Your task to perform on an android device: Add "razer blade" to the cart on bestbuy.com, then select checkout. Image 0: 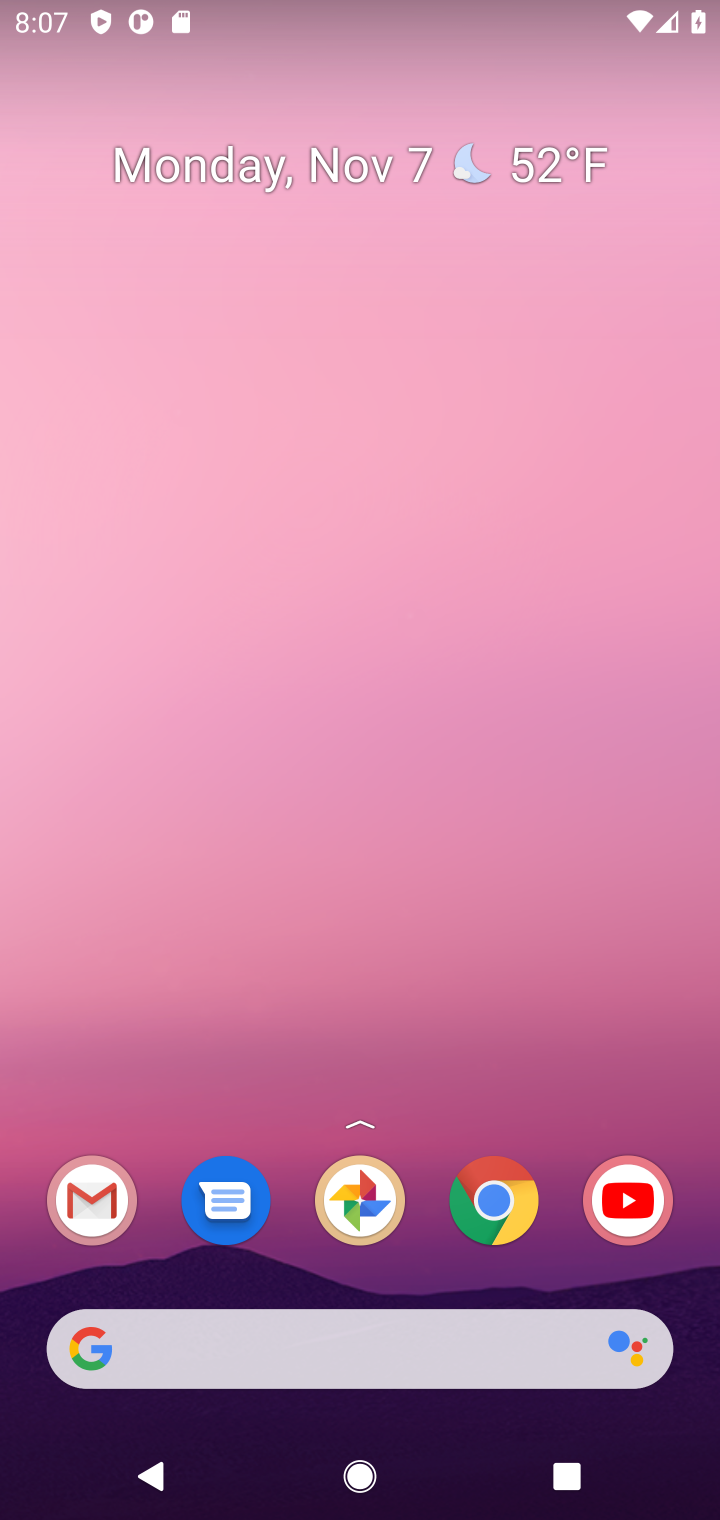
Step 0: click (496, 1138)
Your task to perform on an android device: Add "razer blade" to the cart on bestbuy.com, then select checkout. Image 1: 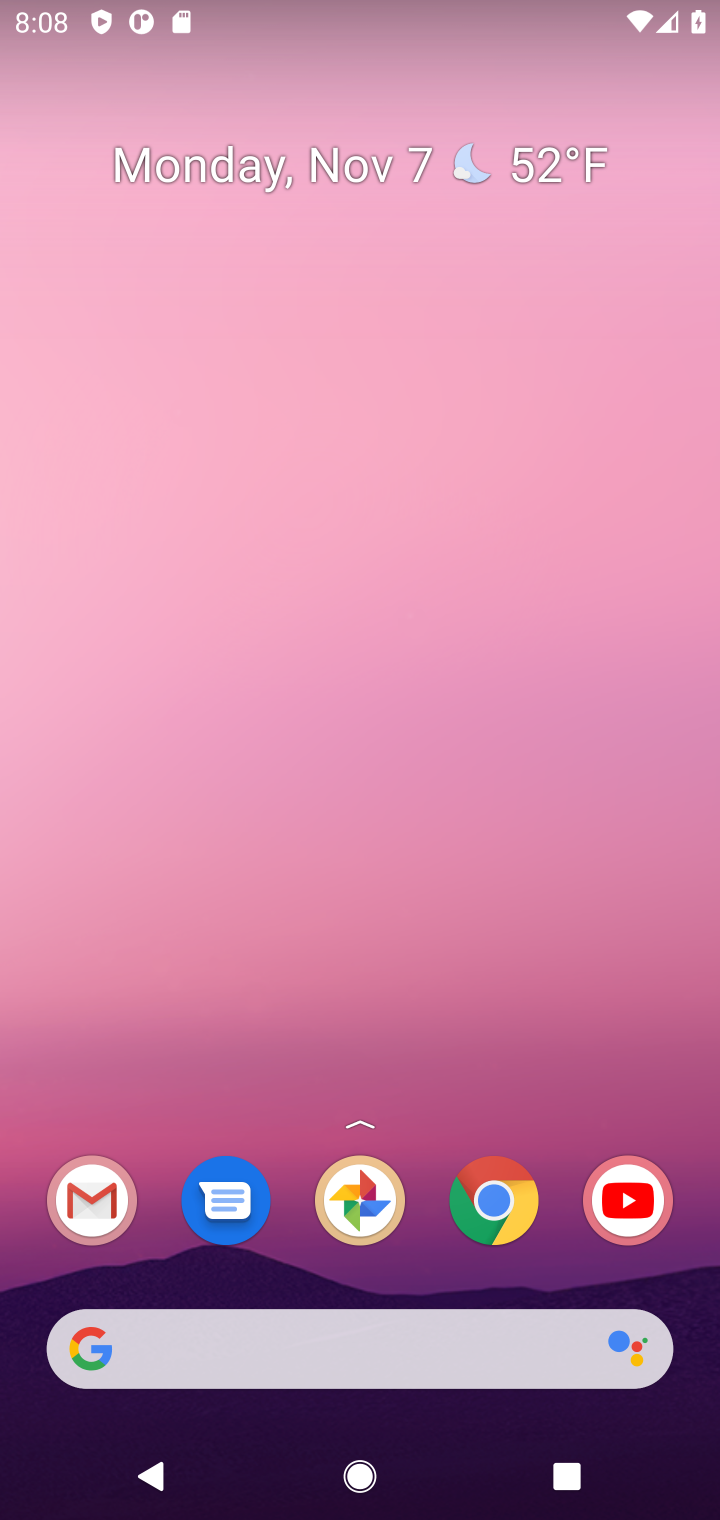
Step 1: click (511, 1214)
Your task to perform on an android device: Add "razer blade" to the cart on bestbuy.com, then select checkout. Image 2: 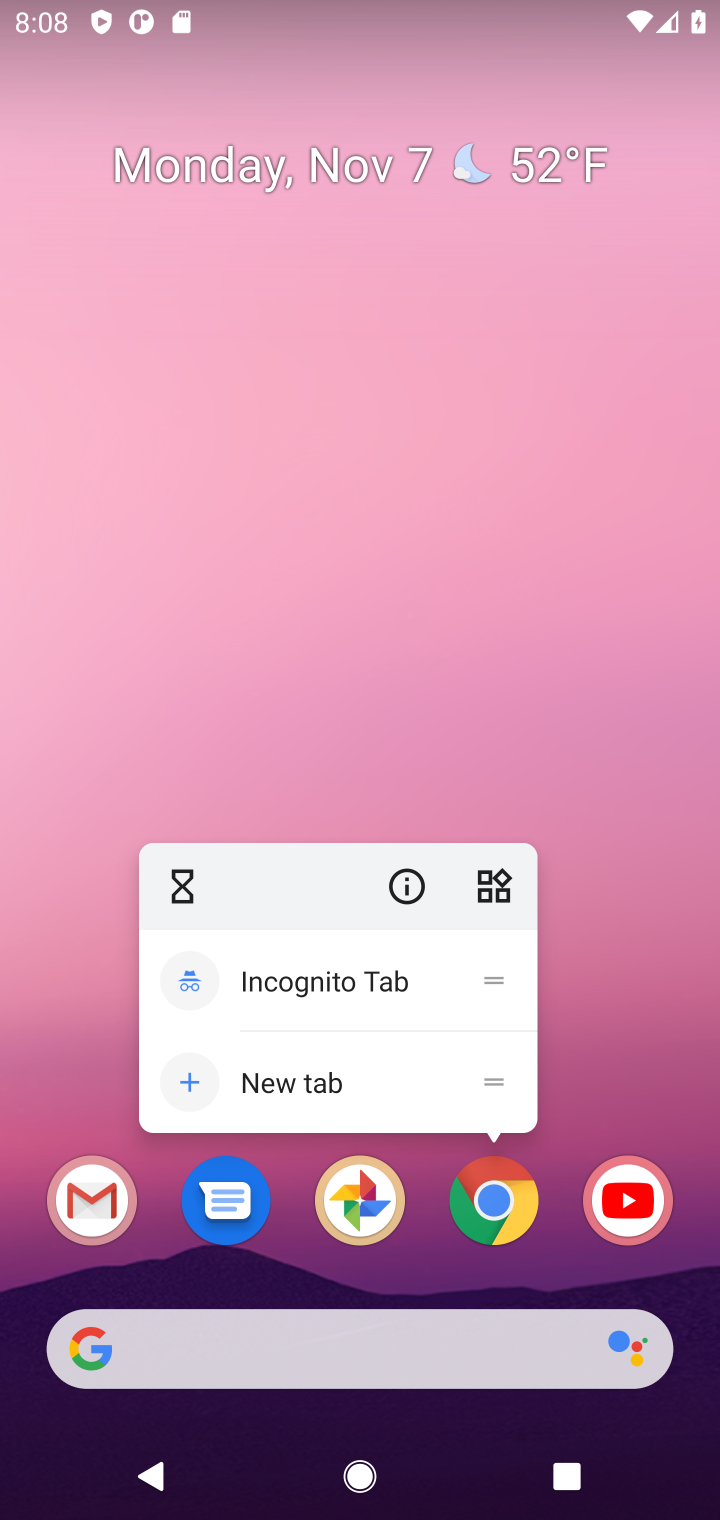
Step 2: click (515, 1229)
Your task to perform on an android device: Add "razer blade" to the cart on bestbuy.com, then select checkout. Image 3: 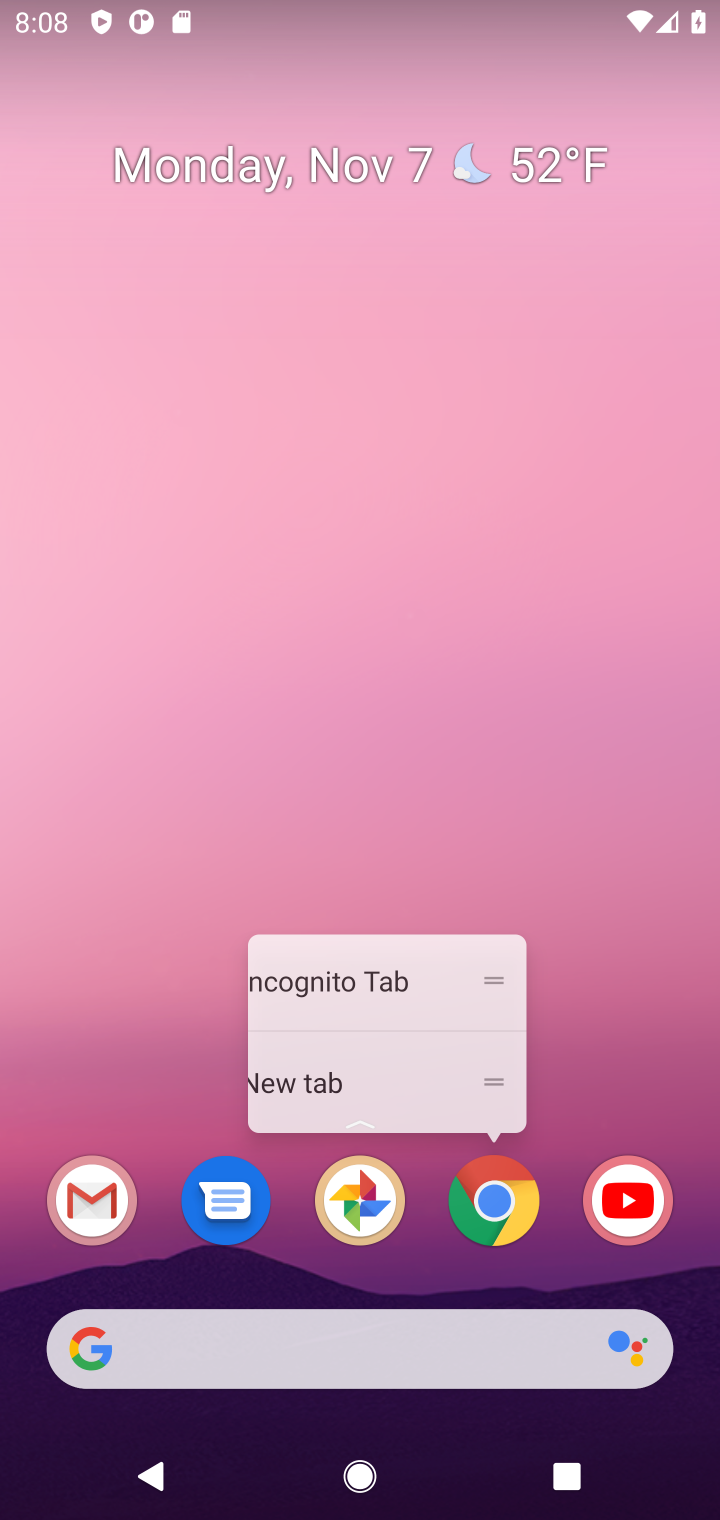
Step 3: click (515, 1229)
Your task to perform on an android device: Add "razer blade" to the cart on bestbuy.com, then select checkout. Image 4: 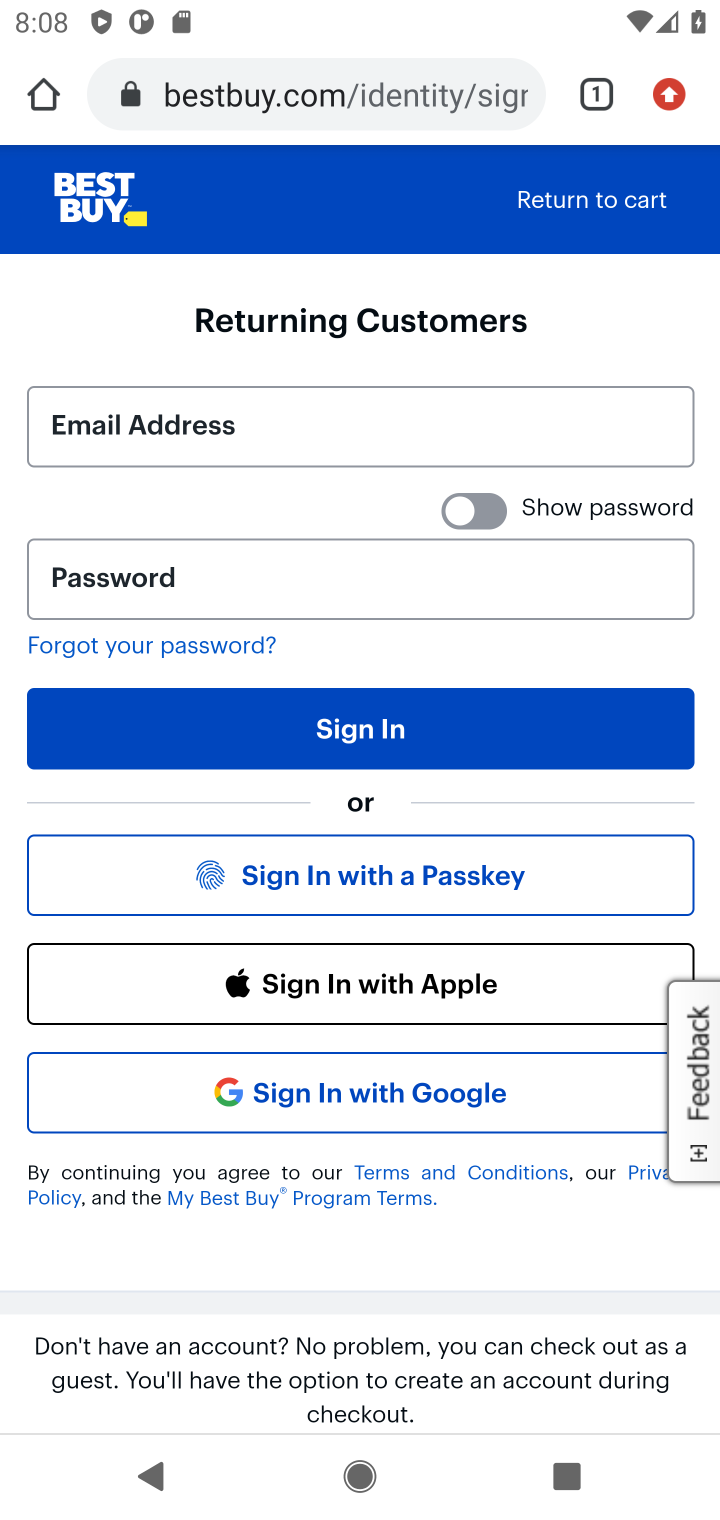
Step 4: click (301, 118)
Your task to perform on an android device: Add "razer blade" to the cart on bestbuy.com, then select checkout. Image 5: 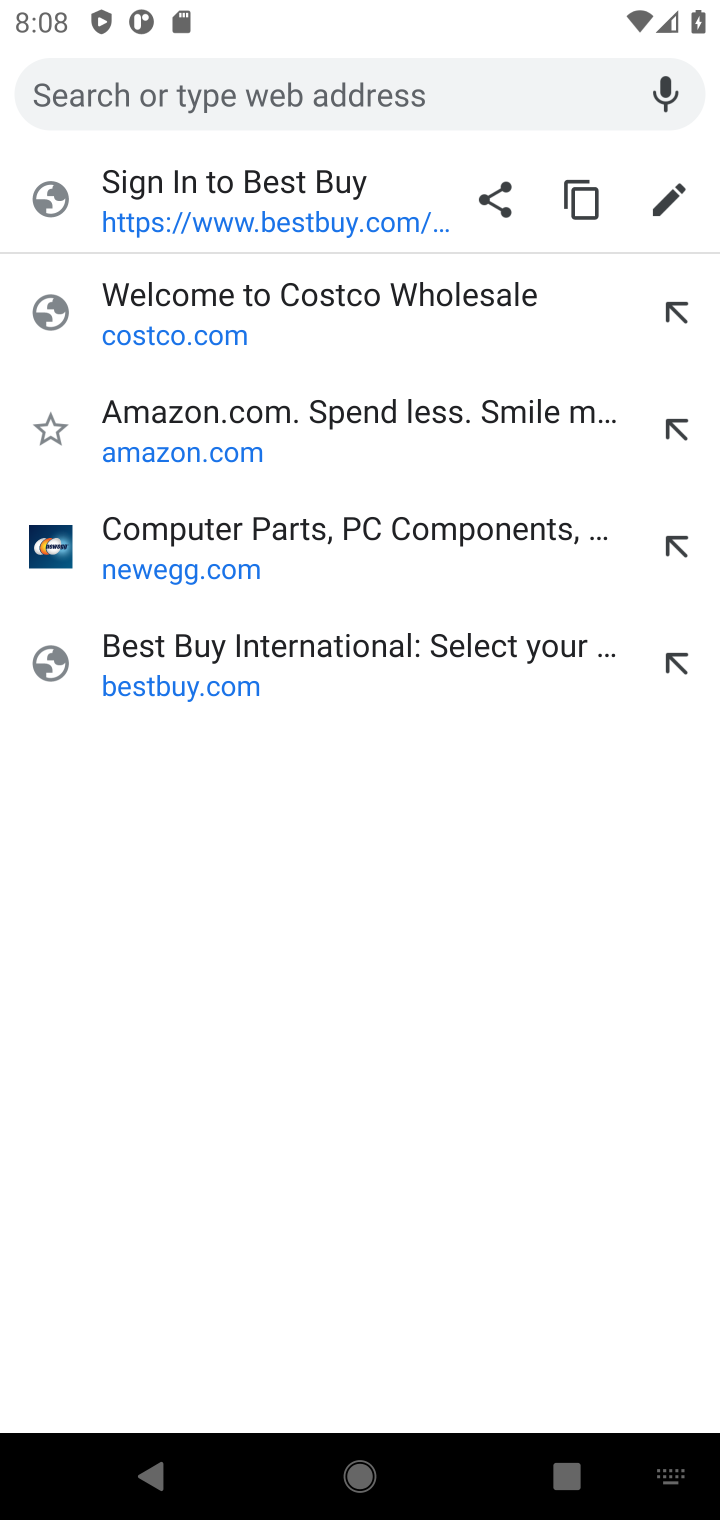
Step 5: type "bestbuy.com"
Your task to perform on an android device: Add "razer blade" to the cart on bestbuy.com, then select checkout. Image 6: 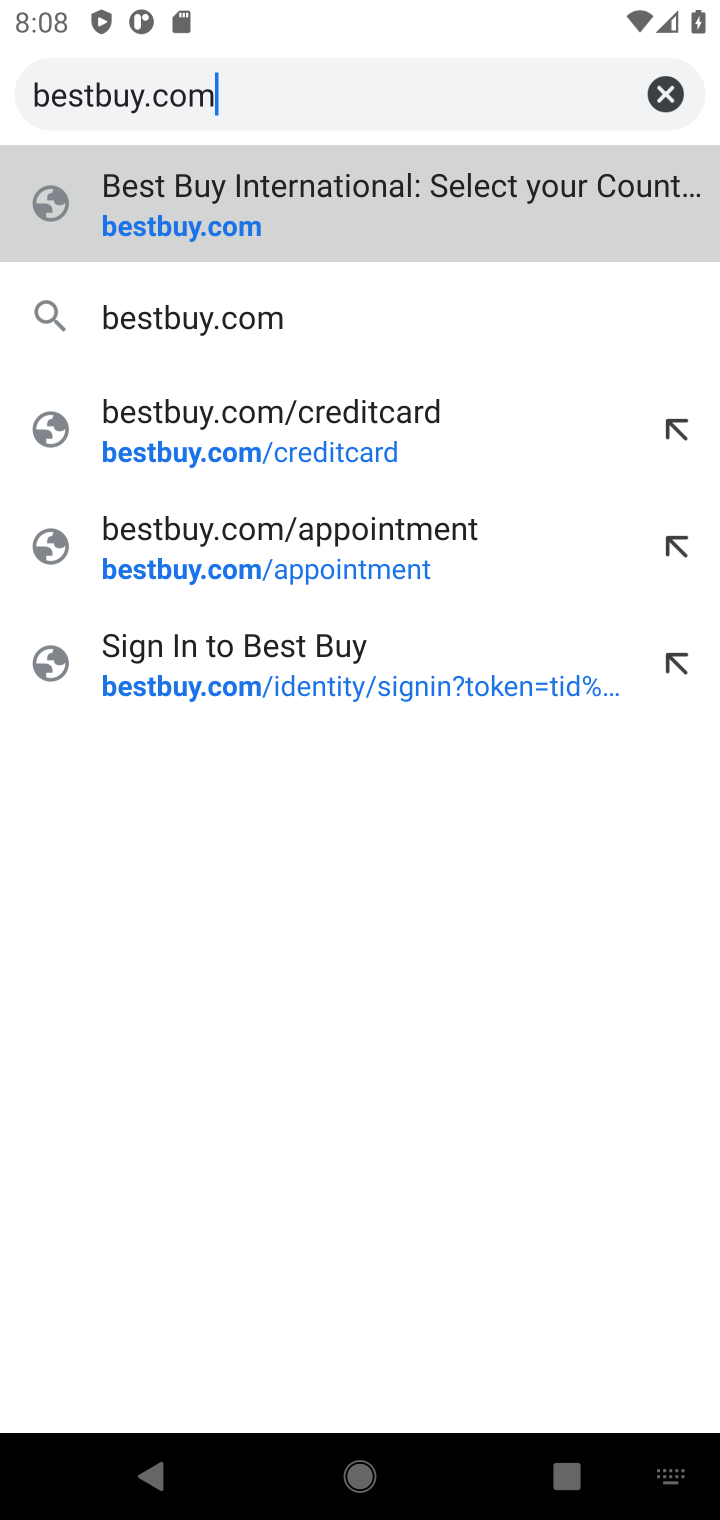
Step 6: press enter
Your task to perform on an android device: Add "razer blade" to the cart on bestbuy.com, then select checkout. Image 7: 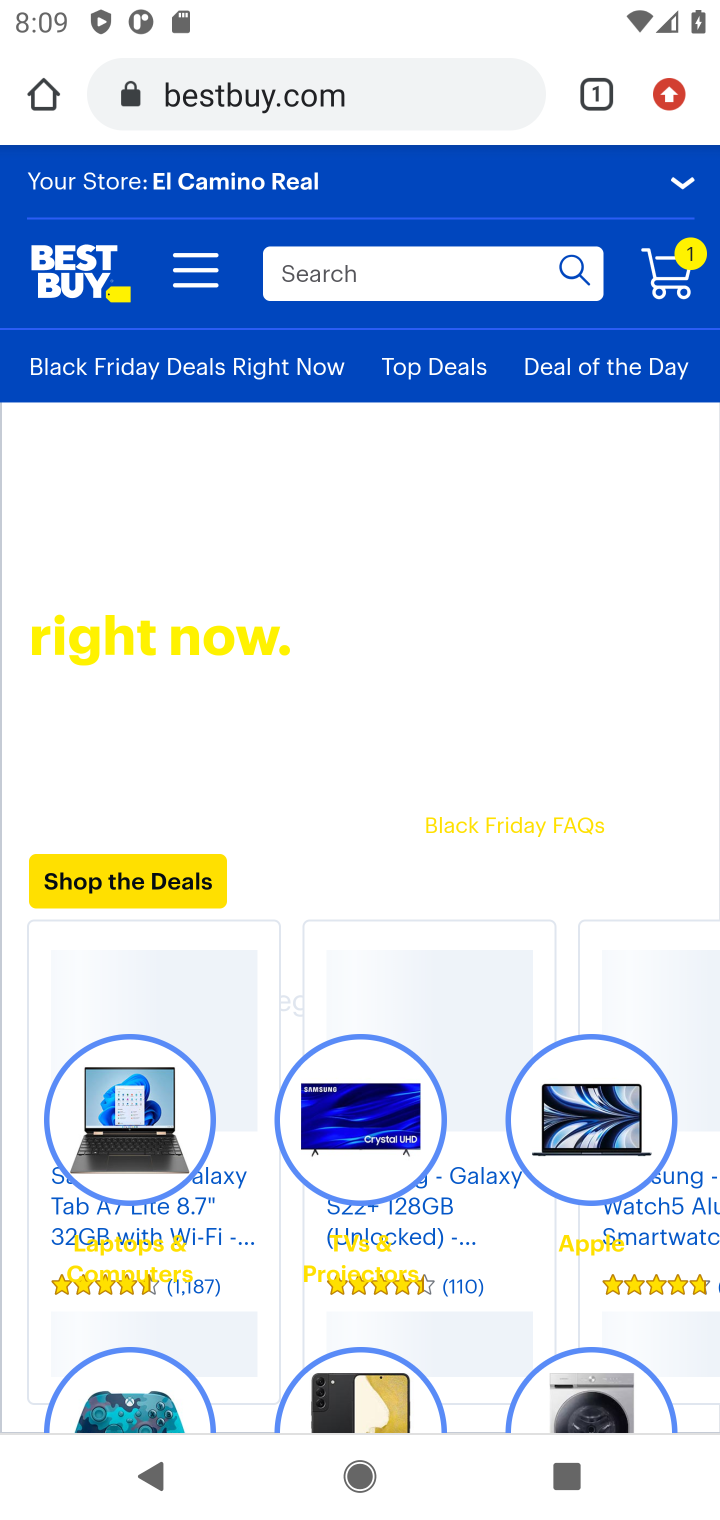
Step 7: click (374, 272)
Your task to perform on an android device: Add "razer blade" to the cart on bestbuy.com, then select checkout. Image 8: 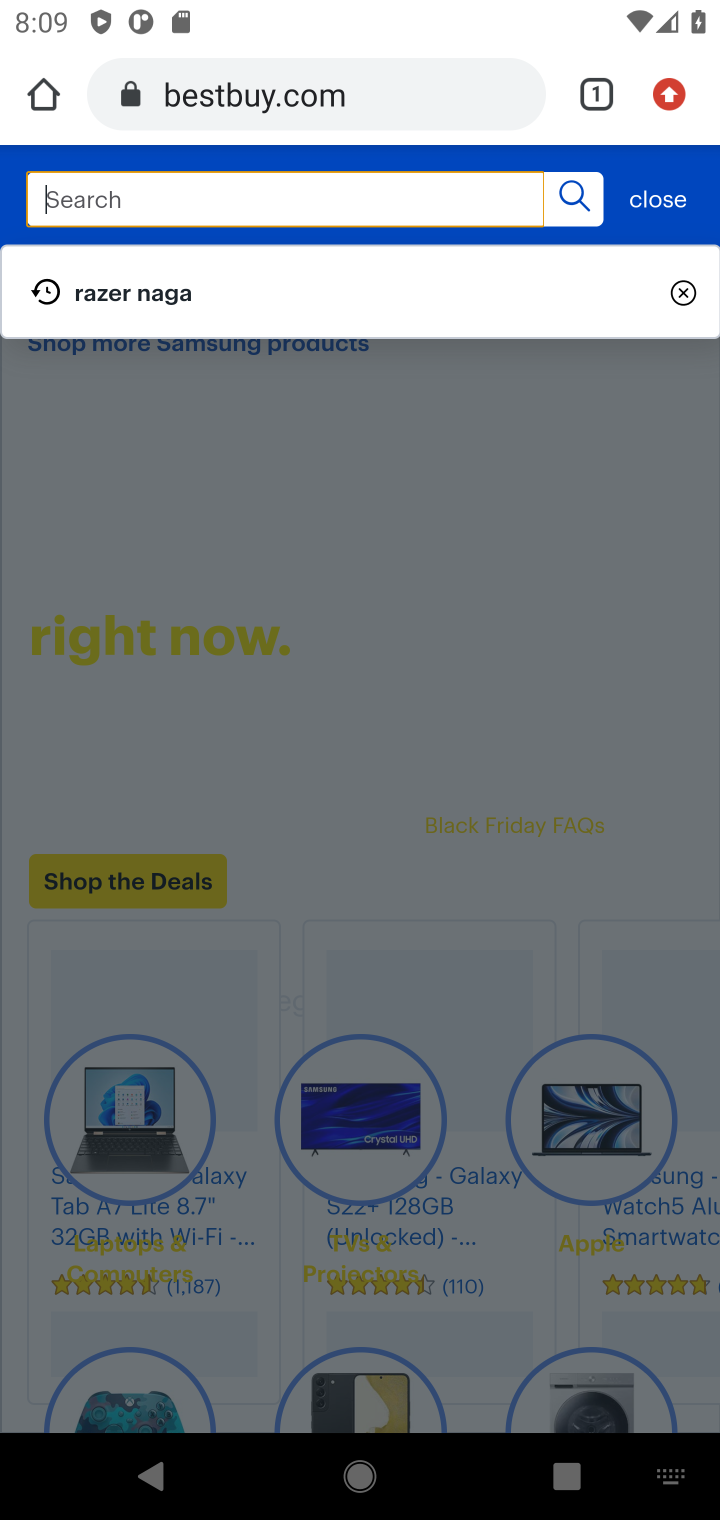
Step 8: type "razer blade"
Your task to perform on an android device: Add "razer blade" to the cart on bestbuy.com, then select checkout. Image 9: 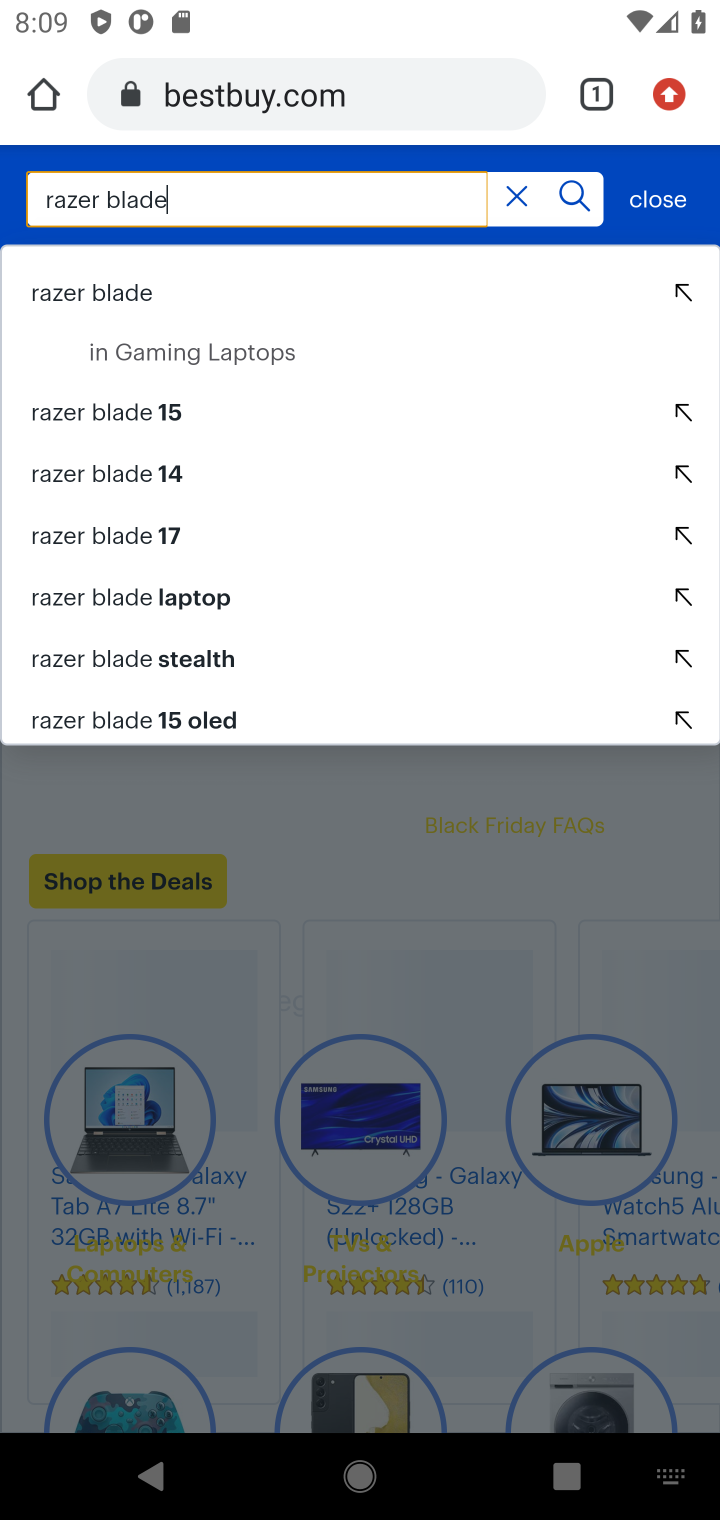
Step 9: press enter
Your task to perform on an android device: Add "razer blade" to the cart on bestbuy.com, then select checkout. Image 10: 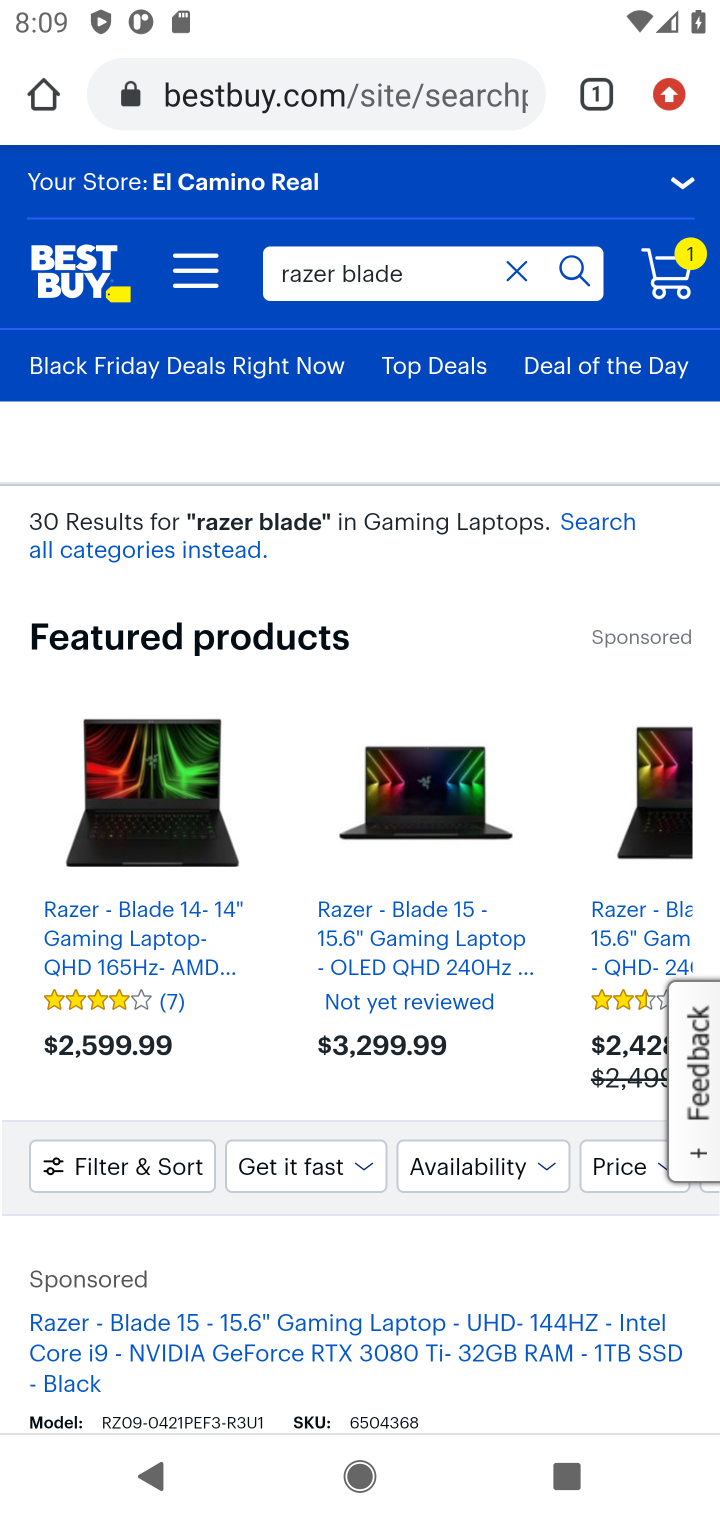
Step 10: drag from (398, 1152) to (397, 633)
Your task to perform on an android device: Add "razer blade" to the cart on bestbuy.com, then select checkout. Image 11: 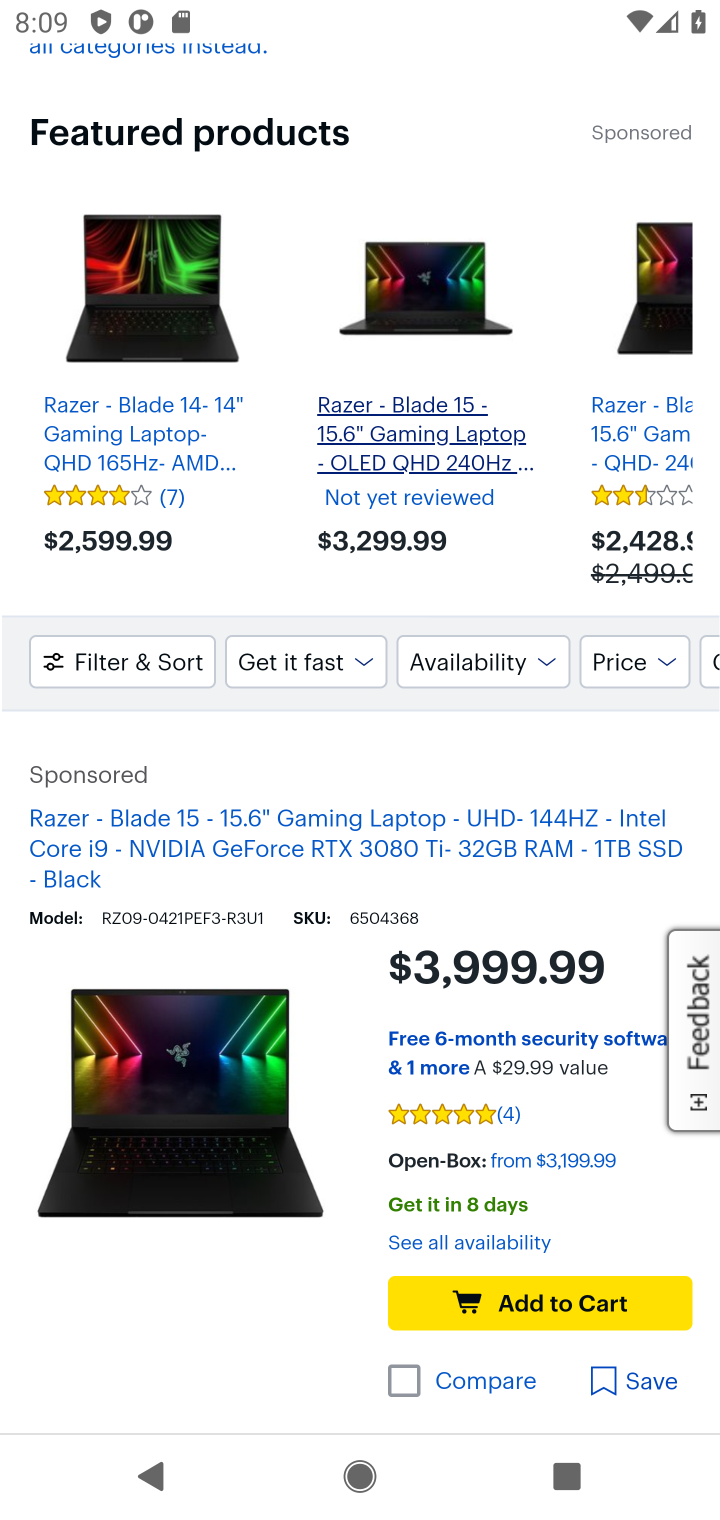
Step 11: click (547, 1305)
Your task to perform on an android device: Add "razer blade" to the cart on bestbuy.com, then select checkout. Image 12: 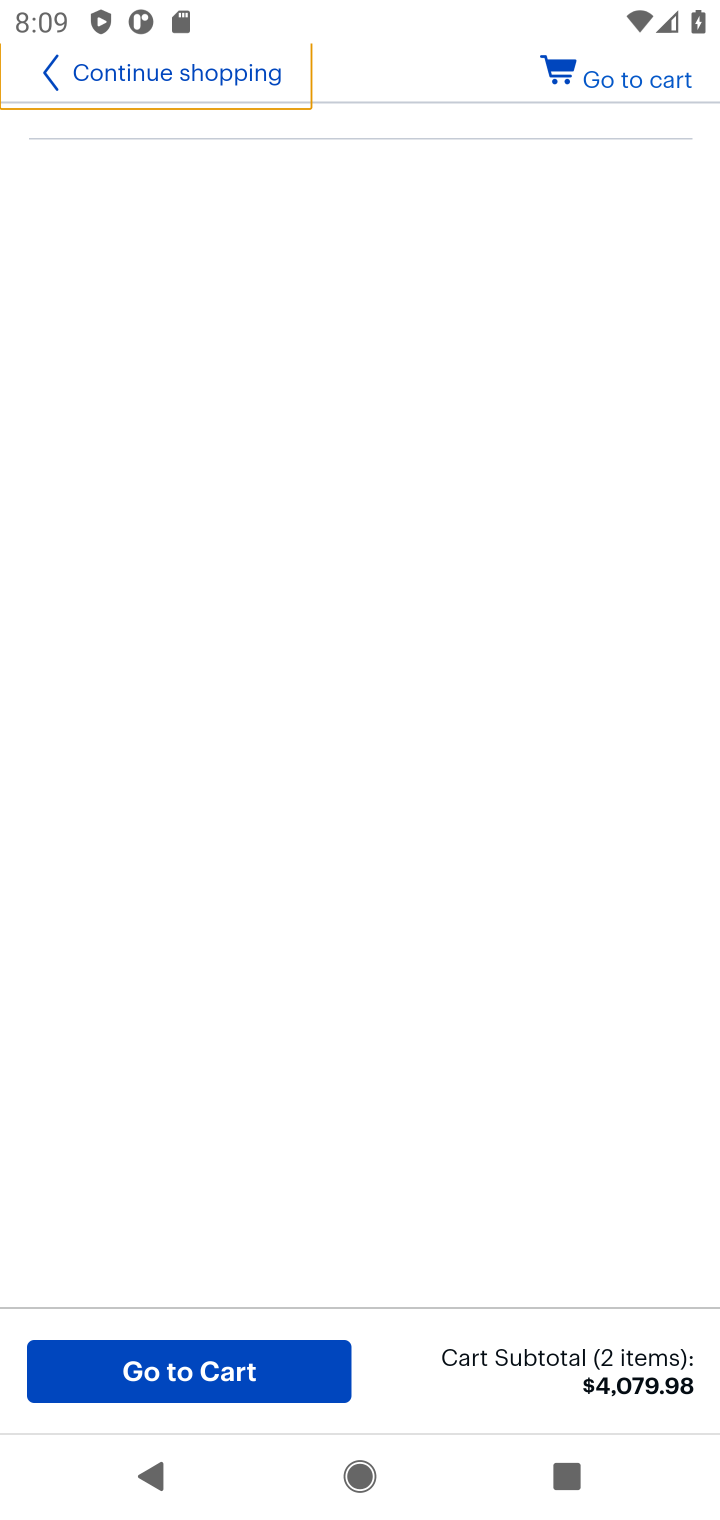
Step 12: click (220, 1381)
Your task to perform on an android device: Add "razer blade" to the cart on bestbuy.com, then select checkout. Image 13: 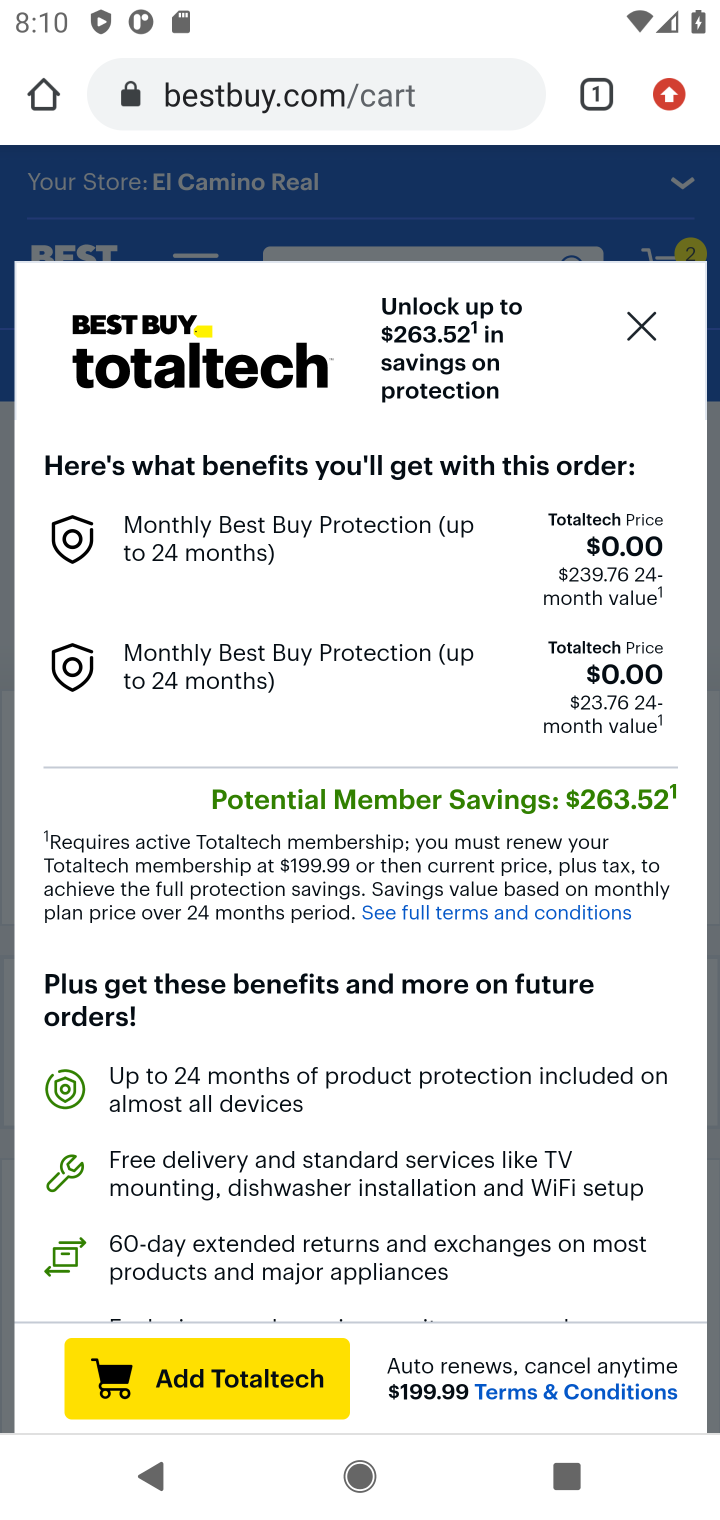
Step 13: click (208, 1372)
Your task to perform on an android device: Add "razer blade" to the cart on bestbuy.com, then select checkout. Image 14: 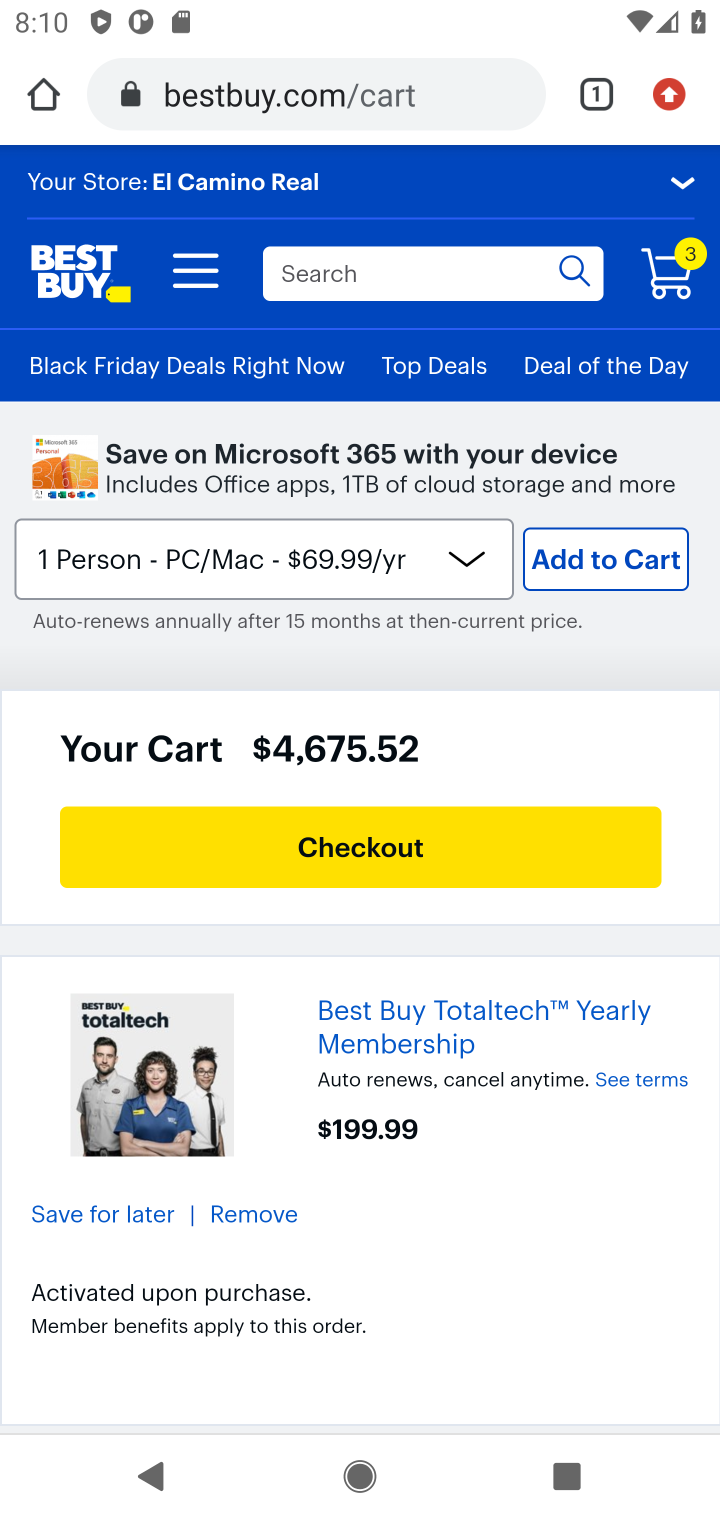
Step 14: click (437, 843)
Your task to perform on an android device: Add "razer blade" to the cart on bestbuy.com, then select checkout. Image 15: 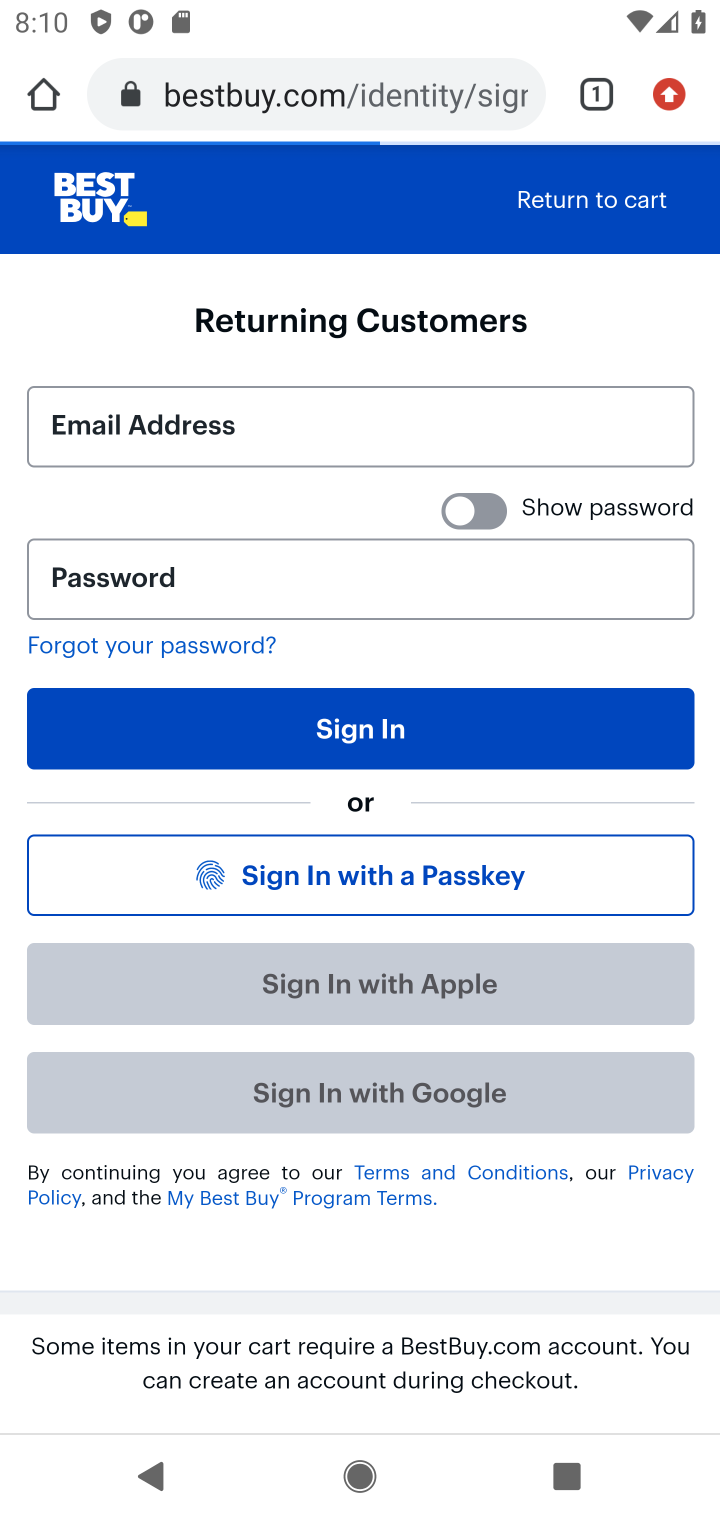
Step 15: task complete